Your task to perform on an android device: Go to eBay Image 0: 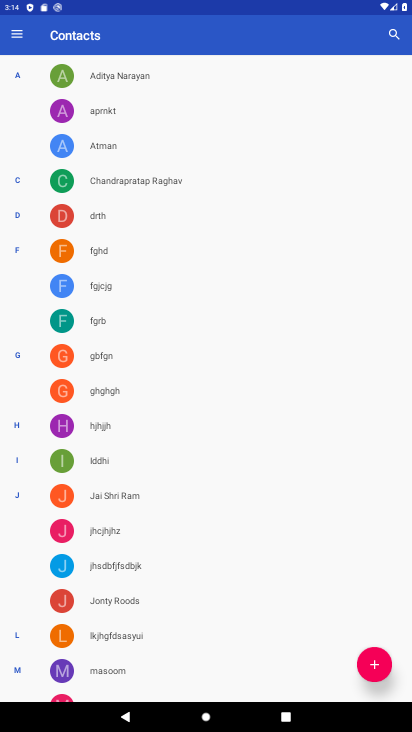
Step 0: press home button
Your task to perform on an android device: Go to eBay Image 1: 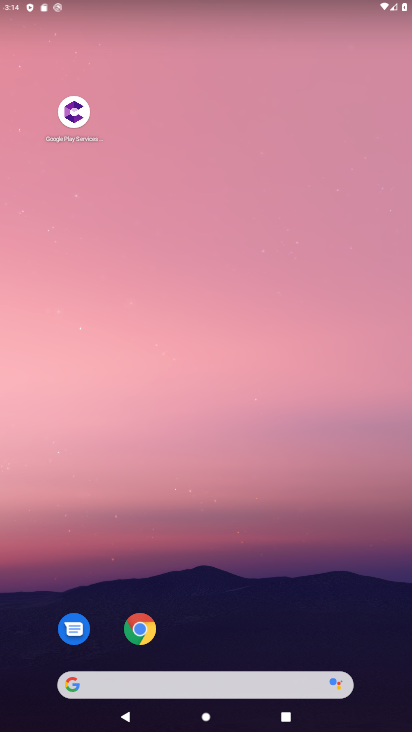
Step 1: click (133, 631)
Your task to perform on an android device: Go to eBay Image 2: 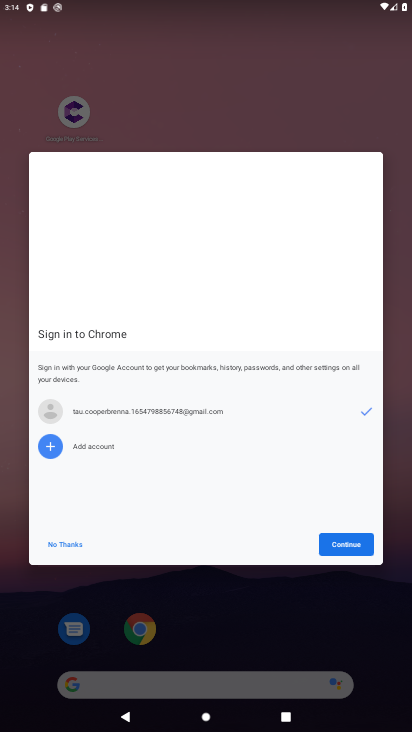
Step 2: click (347, 538)
Your task to perform on an android device: Go to eBay Image 3: 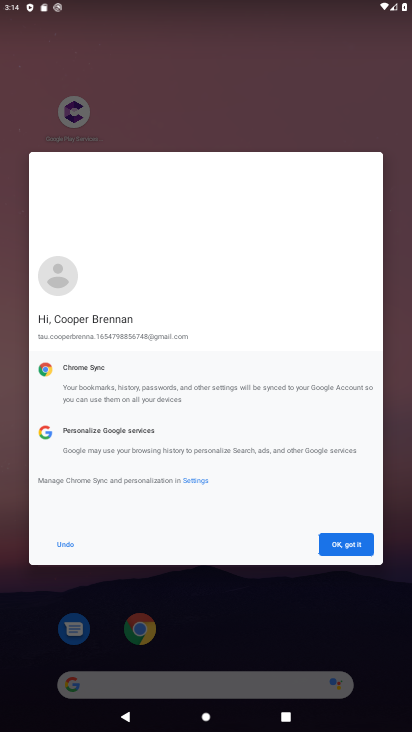
Step 3: click (340, 548)
Your task to perform on an android device: Go to eBay Image 4: 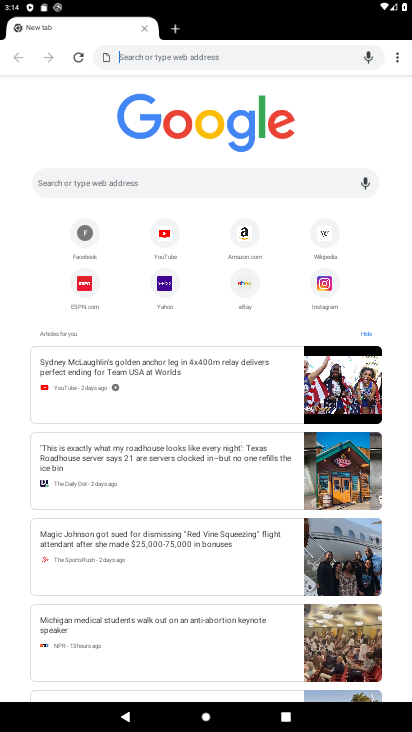
Step 4: click (249, 276)
Your task to perform on an android device: Go to eBay Image 5: 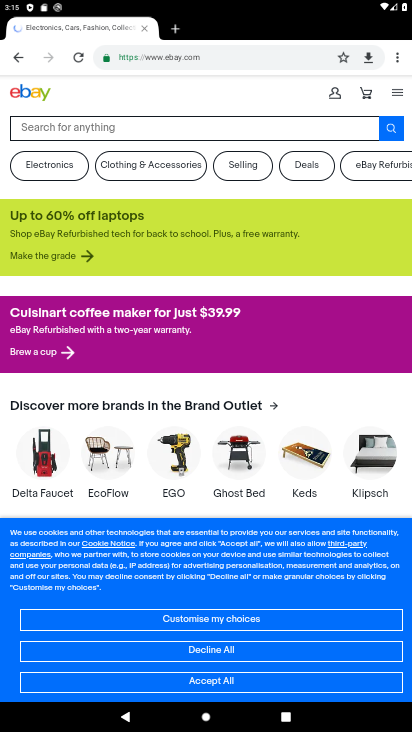
Step 5: task complete